Your task to perform on an android device: stop showing notifications on the lock screen Image 0: 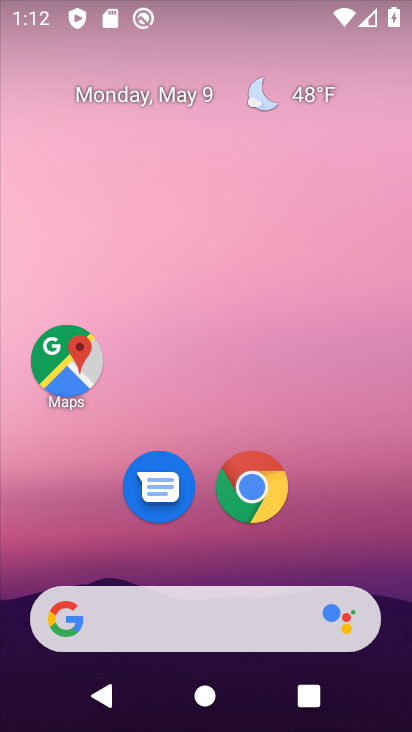
Step 0: drag from (230, 596) to (302, 122)
Your task to perform on an android device: stop showing notifications on the lock screen Image 1: 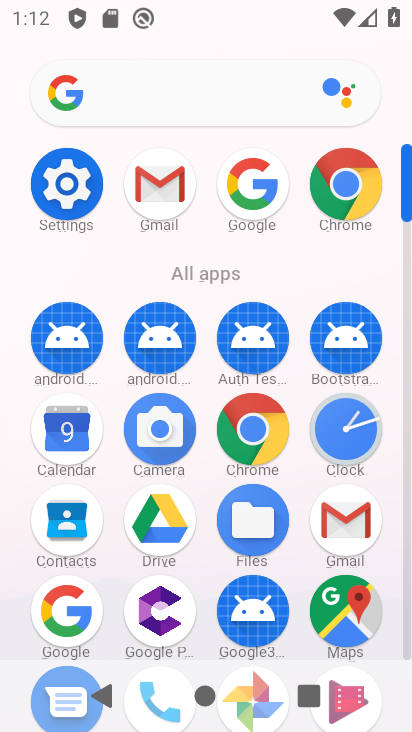
Step 1: click (70, 196)
Your task to perform on an android device: stop showing notifications on the lock screen Image 2: 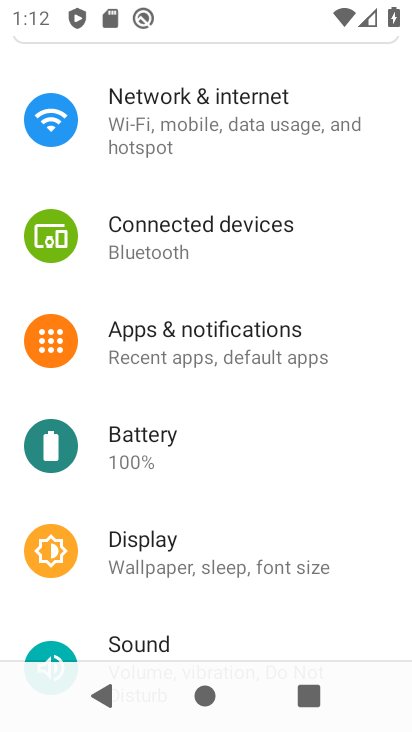
Step 2: drag from (183, 602) to (184, 270)
Your task to perform on an android device: stop showing notifications on the lock screen Image 3: 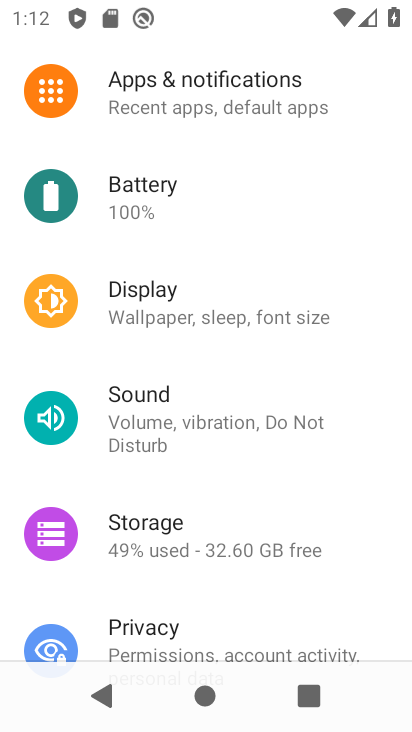
Step 3: drag from (188, 653) to (202, 356)
Your task to perform on an android device: stop showing notifications on the lock screen Image 4: 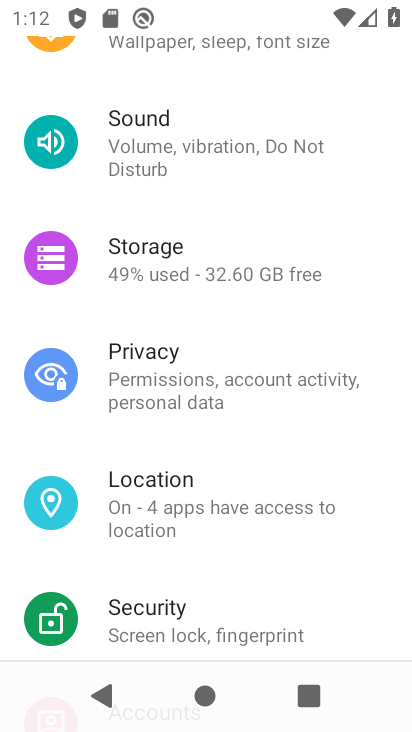
Step 4: drag from (196, 639) to (218, 349)
Your task to perform on an android device: stop showing notifications on the lock screen Image 5: 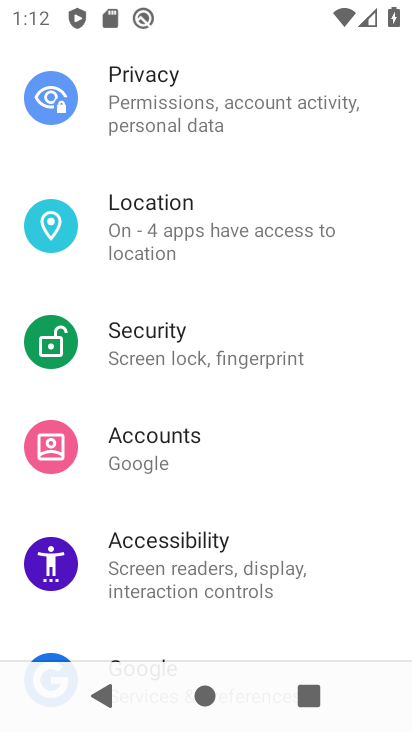
Step 5: click (198, 110)
Your task to perform on an android device: stop showing notifications on the lock screen Image 6: 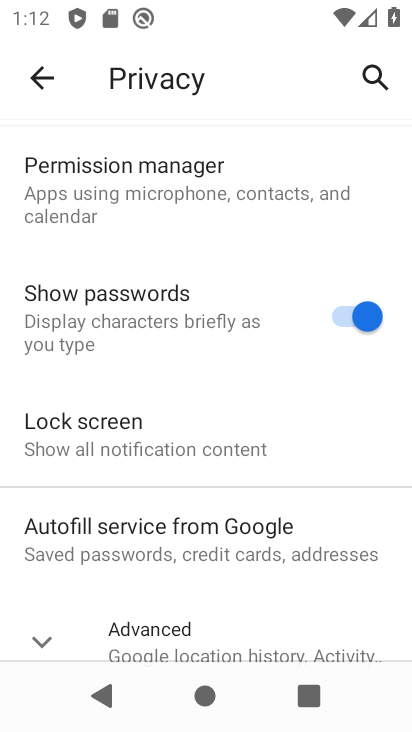
Step 6: click (127, 422)
Your task to perform on an android device: stop showing notifications on the lock screen Image 7: 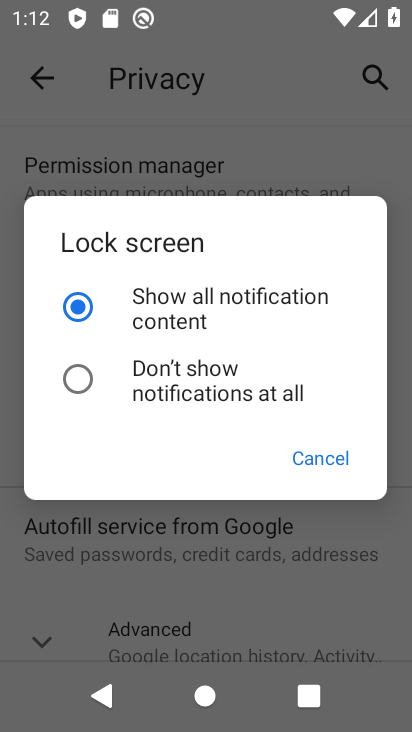
Step 7: click (134, 381)
Your task to perform on an android device: stop showing notifications on the lock screen Image 8: 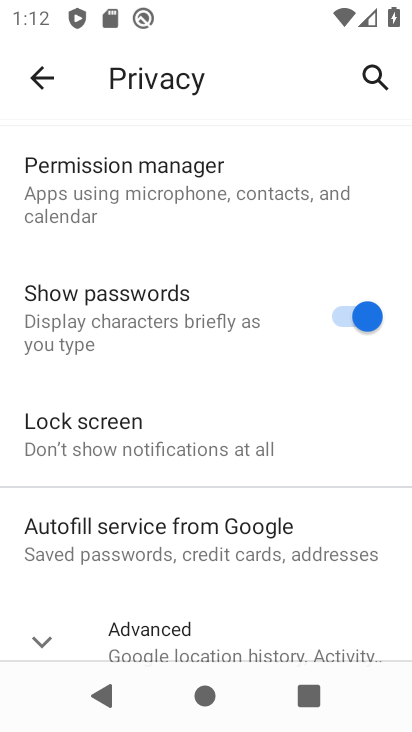
Step 8: task complete